Your task to perform on an android device: change timer sound Image 0: 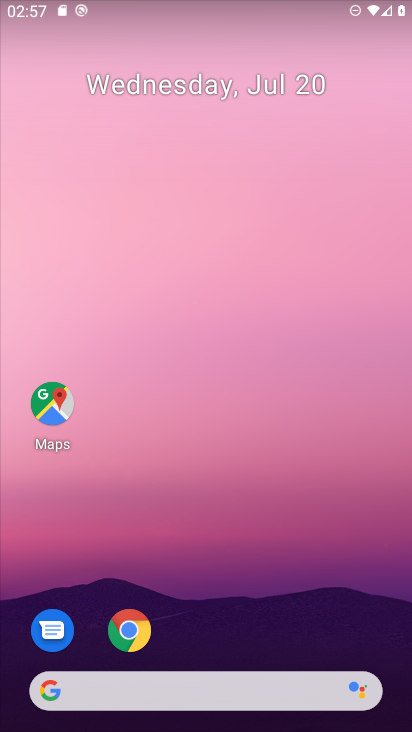
Step 0: drag from (325, 621) to (370, 117)
Your task to perform on an android device: change timer sound Image 1: 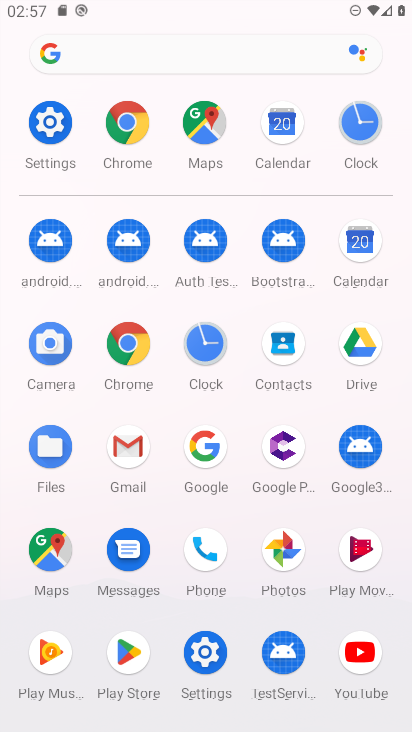
Step 1: click (207, 344)
Your task to perform on an android device: change timer sound Image 2: 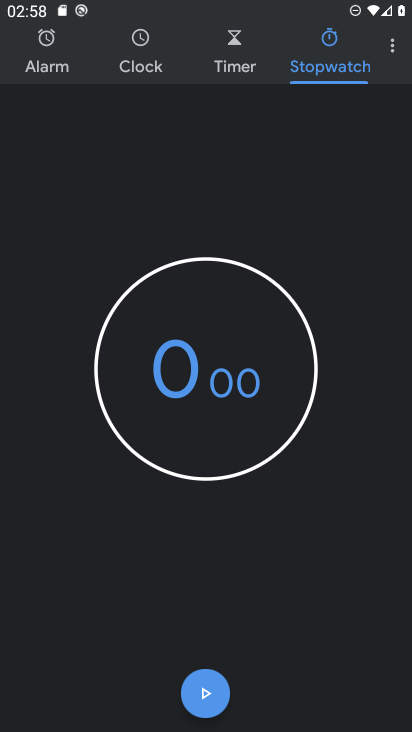
Step 2: click (390, 51)
Your task to perform on an android device: change timer sound Image 3: 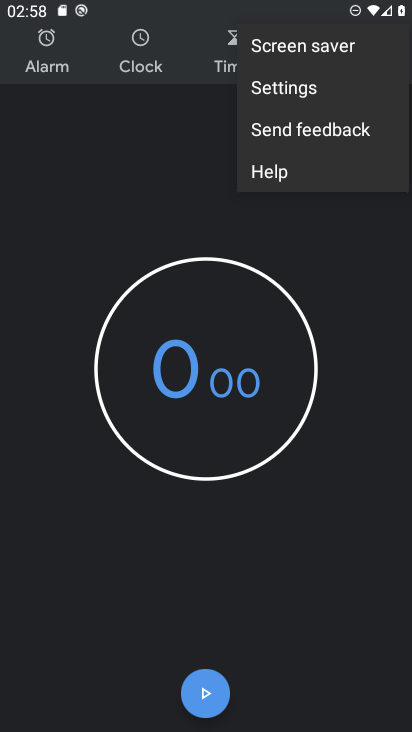
Step 3: click (355, 93)
Your task to perform on an android device: change timer sound Image 4: 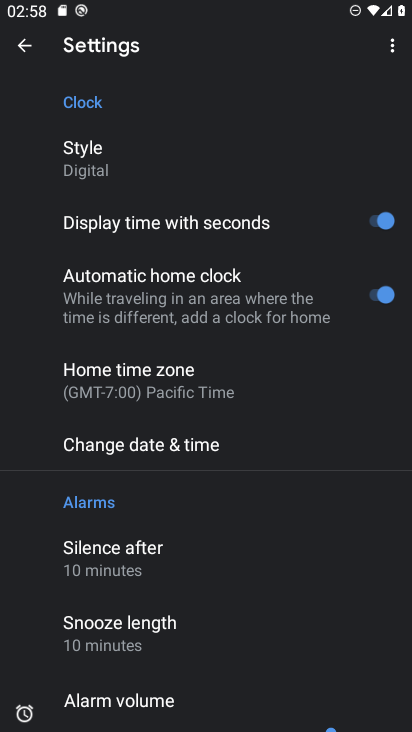
Step 4: drag from (326, 382) to (336, 282)
Your task to perform on an android device: change timer sound Image 5: 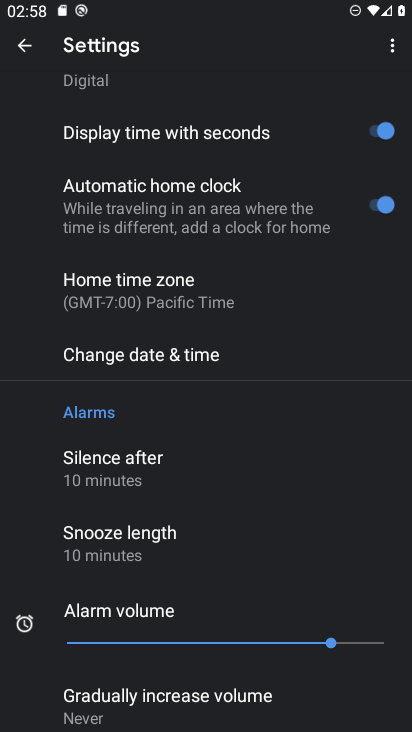
Step 5: drag from (304, 430) to (300, 317)
Your task to perform on an android device: change timer sound Image 6: 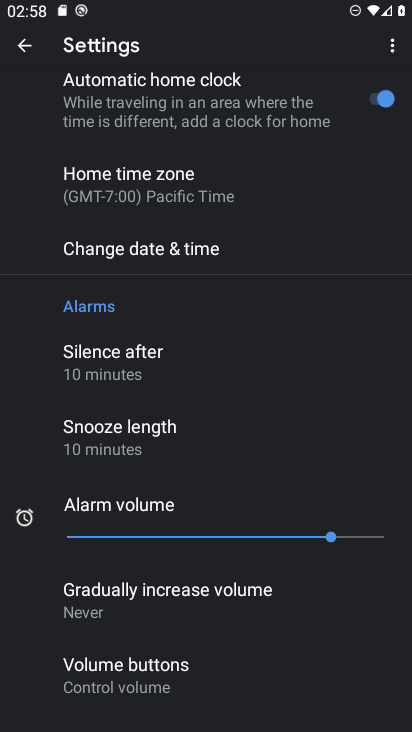
Step 6: drag from (294, 415) to (298, 351)
Your task to perform on an android device: change timer sound Image 7: 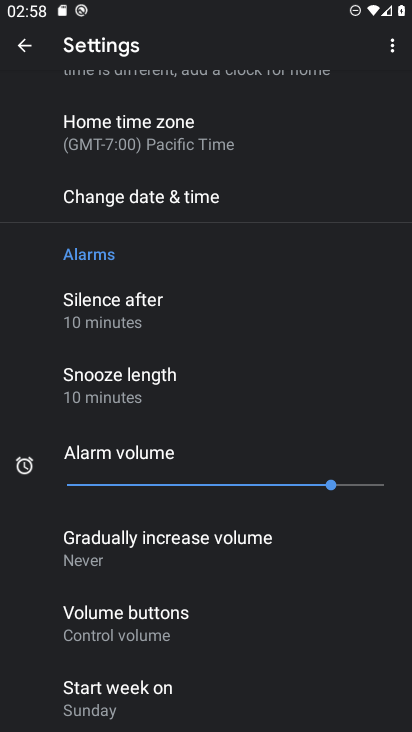
Step 7: drag from (296, 498) to (297, 383)
Your task to perform on an android device: change timer sound Image 8: 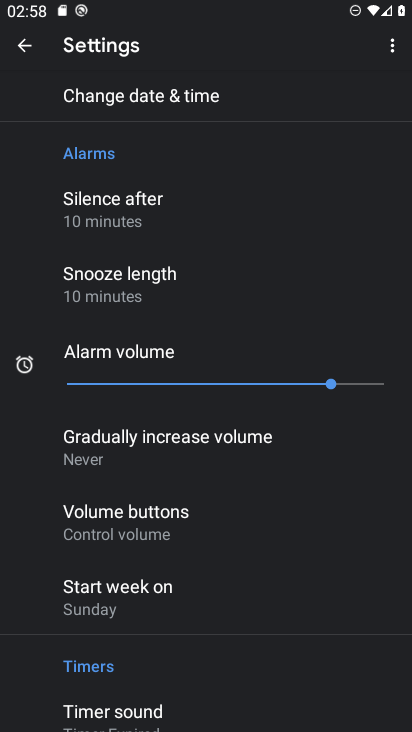
Step 8: drag from (291, 494) to (287, 403)
Your task to perform on an android device: change timer sound Image 9: 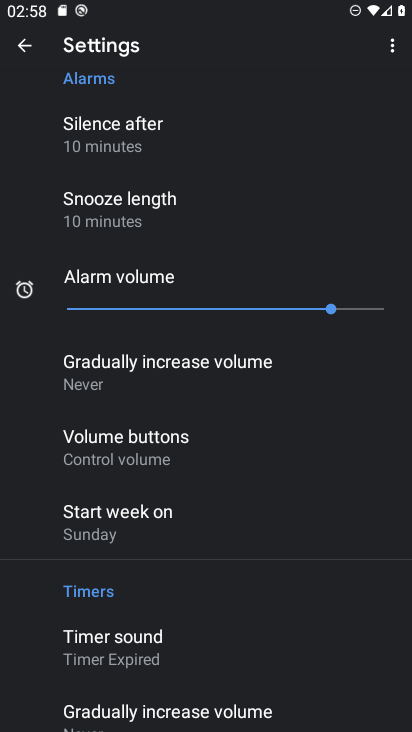
Step 9: drag from (272, 522) to (268, 421)
Your task to perform on an android device: change timer sound Image 10: 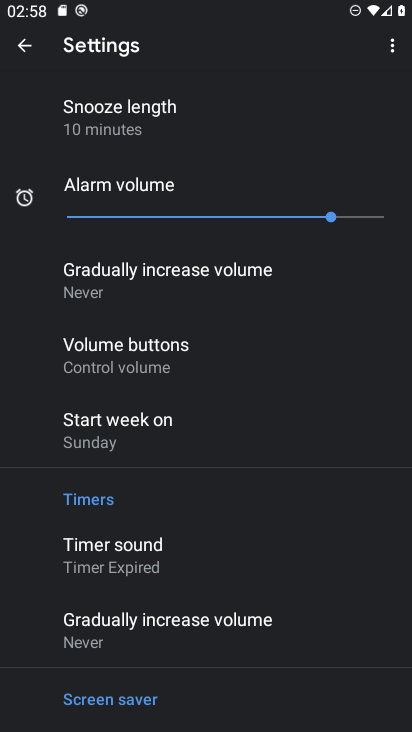
Step 10: drag from (262, 544) to (263, 420)
Your task to perform on an android device: change timer sound Image 11: 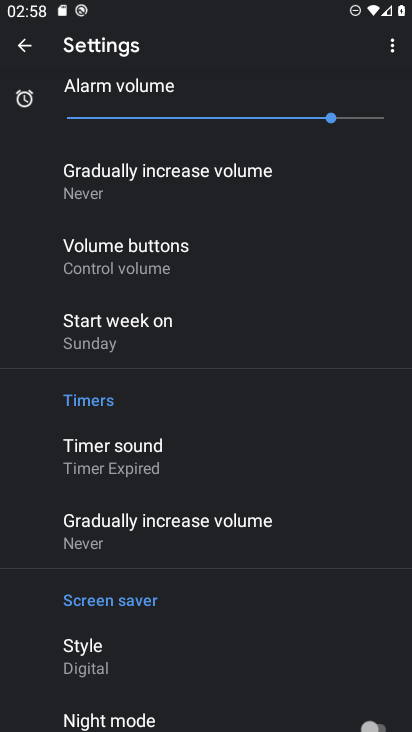
Step 11: click (232, 448)
Your task to perform on an android device: change timer sound Image 12: 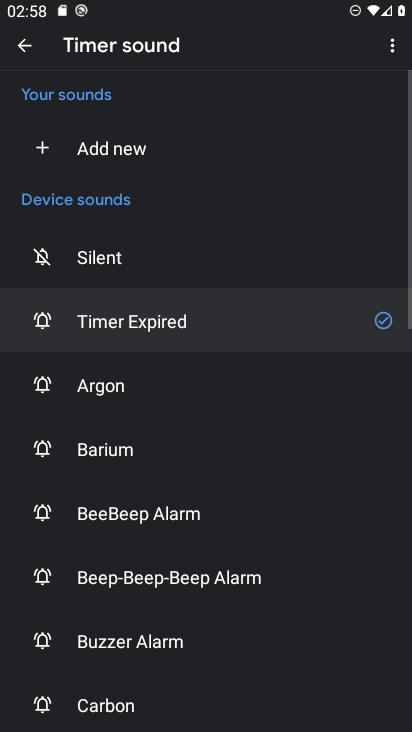
Step 12: click (205, 467)
Your task to perform on an android device: change timer sound Image 13: 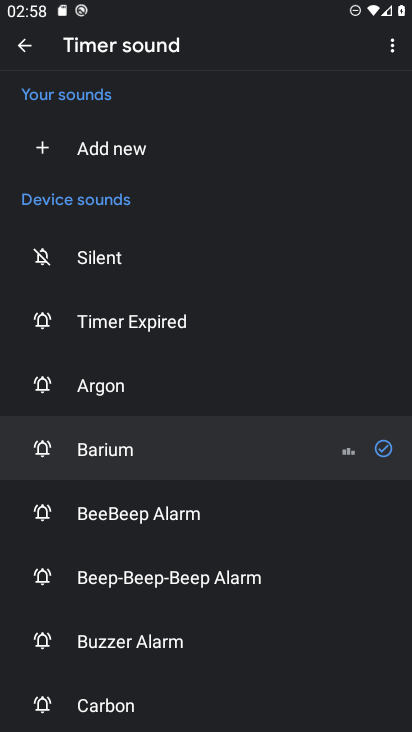
Step 13: task complete